Your task to perform on an android device: Go to Wikipedia Image 0: 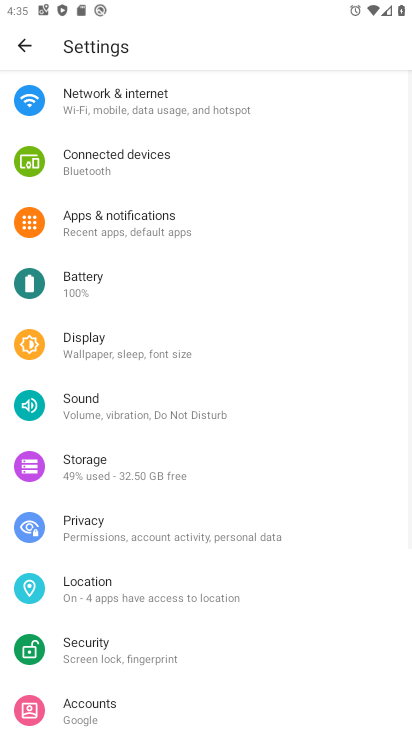
Step 0: press home button
Your task to perform on an android device: Go to Wikipedia Image 1: 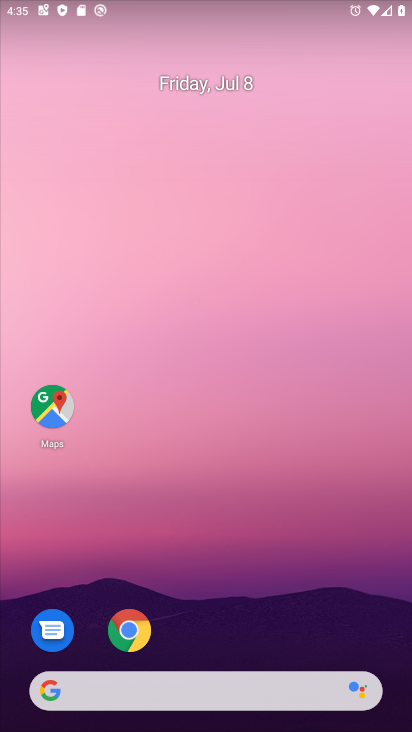
Step 1: click (131, 628)
Your task to perform on an android device: Go to Wikipedia Image 2: 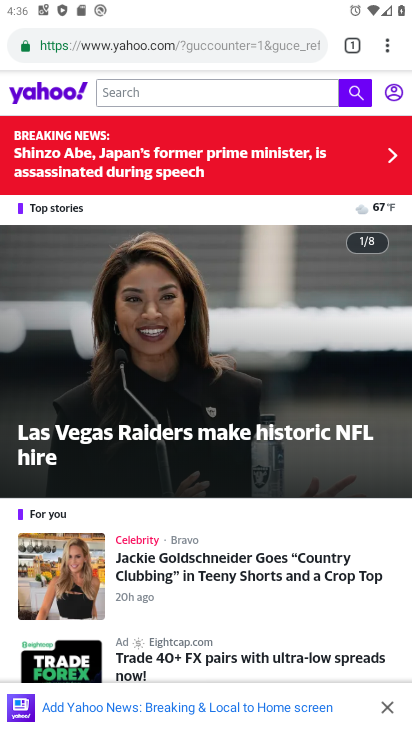
Step 2: click (287, 47)
Your task to perform on an android device: Go to Wikipedia Image 3: 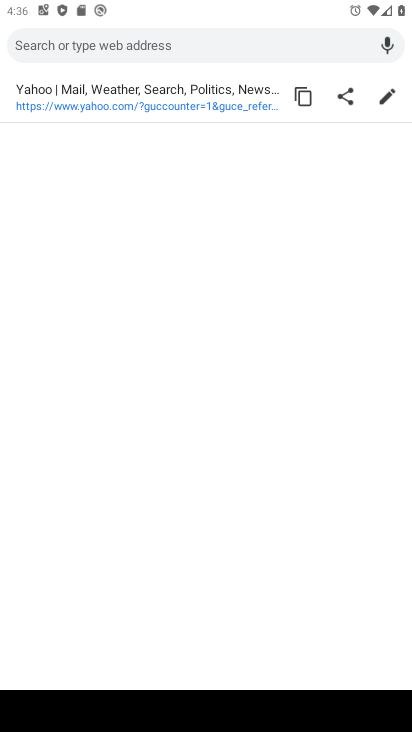
Step 3: type "Wikipedia"
Your task to perform on an android device: Go to Wikipedia Image 4: 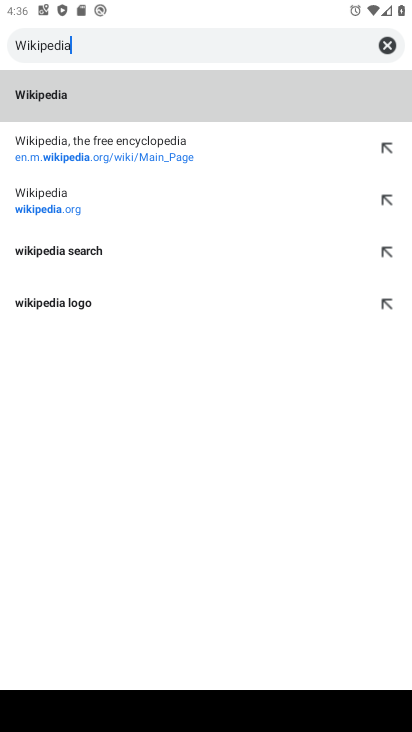
Step 4: click (68, 110)
Your task to perform on an android device: Go to Wikipedia Image 5: 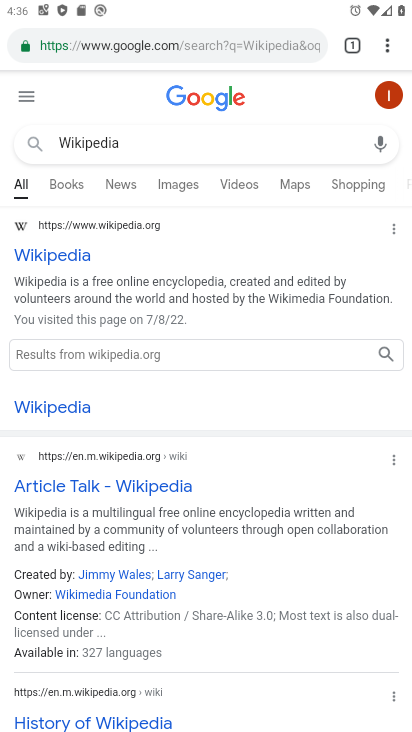
Step 5: click (76, 247)
Your task to perform on an android device: Go to Wikipedia Image 6: 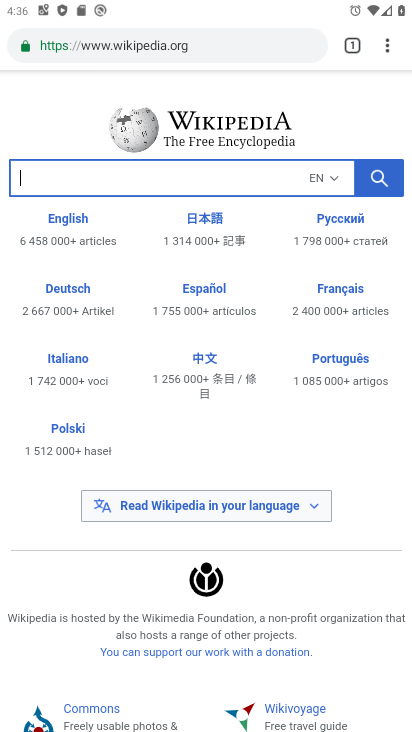
Step 6: task complete